Your task to perform on an android device: move an email to a new category in the gmail app Image 0: 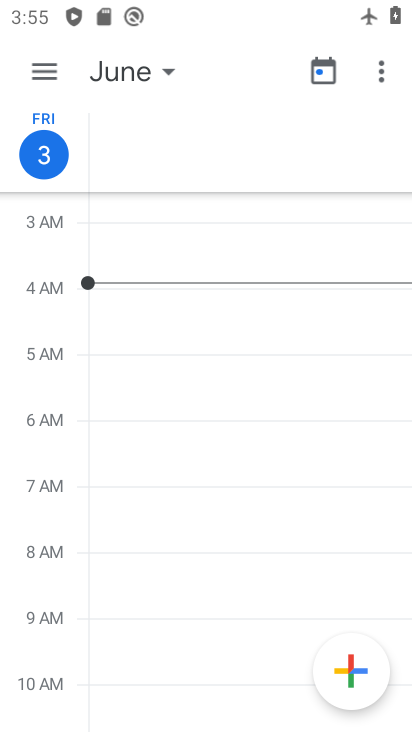
Step 0: press home button
Your task to perform on an android device: move an email to a new category in the gmail app Image 1: 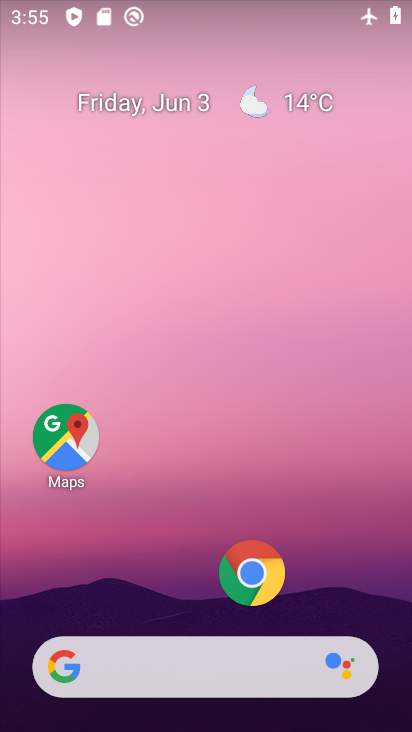
Step 1: drag from (117, 553) to (158, 413)
Your task to perform on an android device: move an email to a new category in the gmail app Image 2: 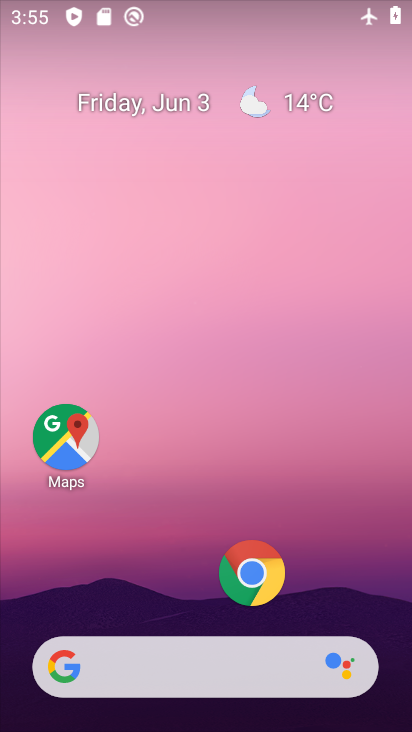
Step 2: drag from (150, 614) to (188, 260)
Your task to perform on an android device: move an email to a new category in the gmail app Image 3: 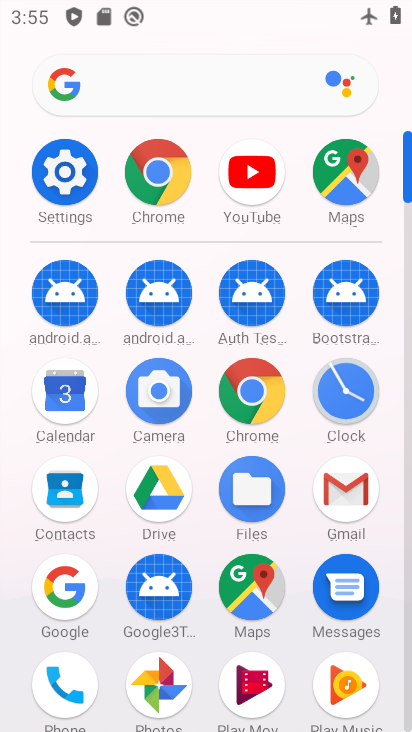
Step 3: click (349, 510)
Your task to perform on an android device: move an email to a new category in the gmail app Image 4: 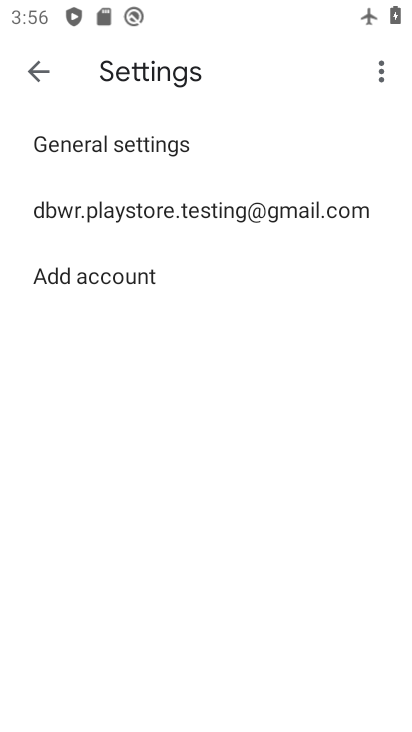
Step 4: click (58, 71)
Your task to perform on an android device: move an email to a new category in the gmail app Image 5: 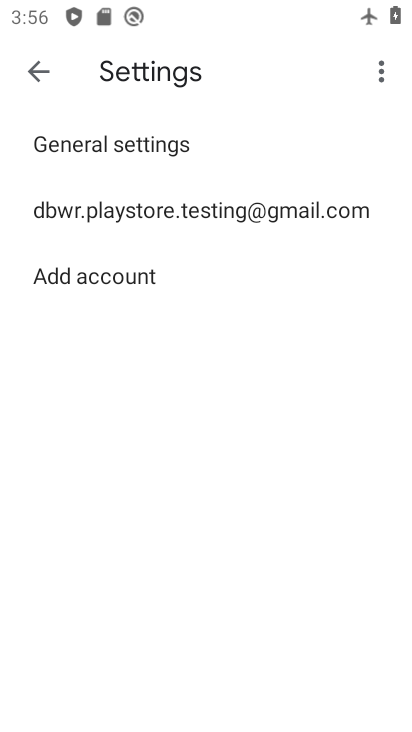
Step 5: click (34, 78)
Your task to perform on an android device: move an email to a new category in the gmail app Image 6: 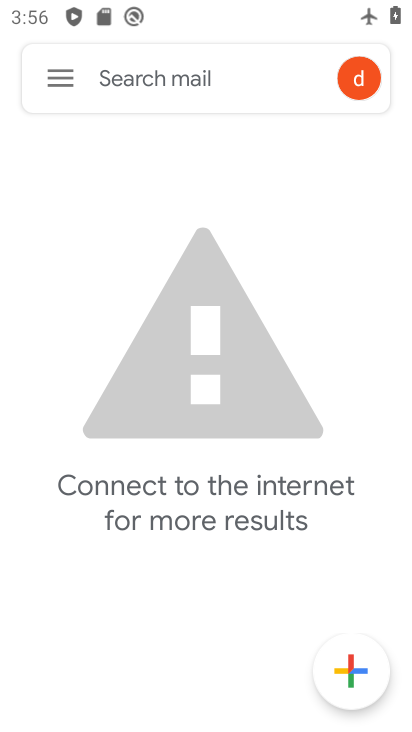
Step 6: click (47, 79)
Your task to perform on an android device: move an email to a new category in the gmail app Image 7: 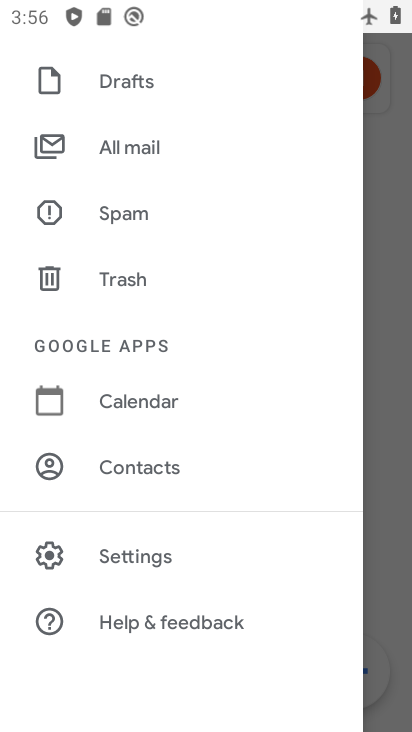
Step 7: click (130, 141)
Your task to perform on an android device: move an email to a new category in the gmail app Image 8: 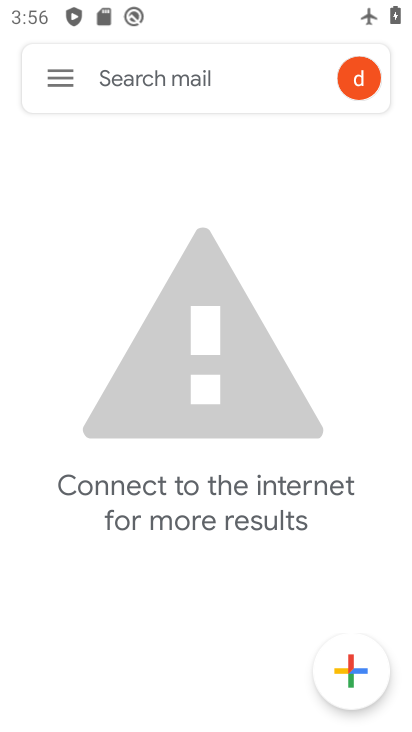
Step 8: task complete